Your task to perform on an android device: delete a single message in the gmail app Image 0: 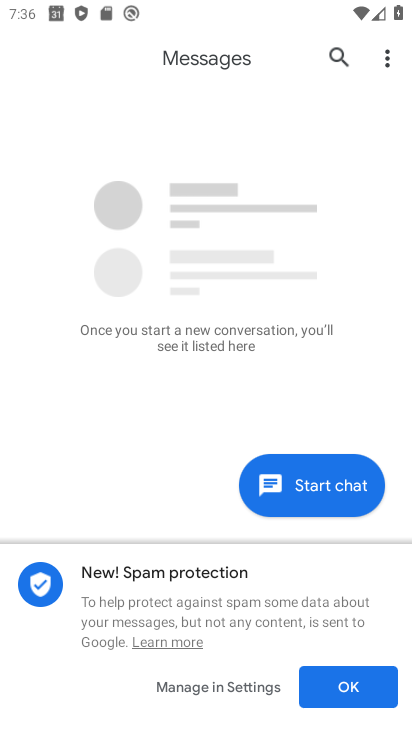
Step 0: press home button
Your task to perform on an android device: delete a single message in the gmail app Image 1: 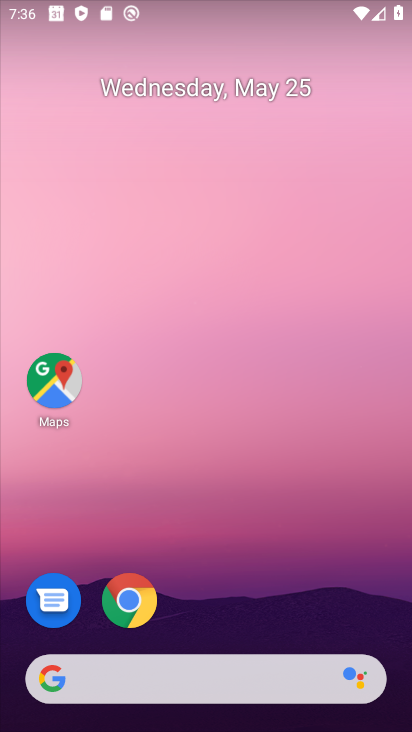
Step 1: drag from (358, 606) to (339, 238)
Your task to perform on an android device: delete a single message in the gmail app Image 2: 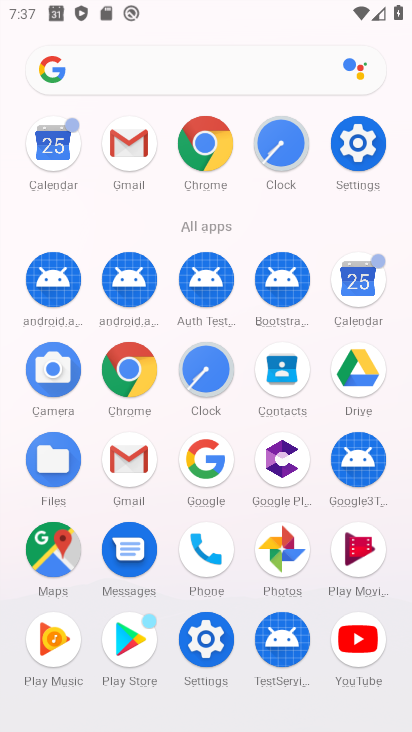
Step 2: click (138, 464)
Your task to perform on an android device: delete a single message in the gmail app Image 3: 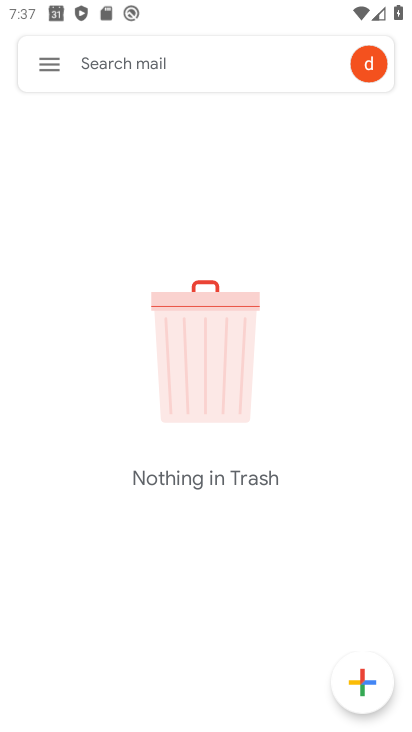
Step 3: click (56, 66)
Your task to perform on an android device: delete a single message in the gmail app Image 4: 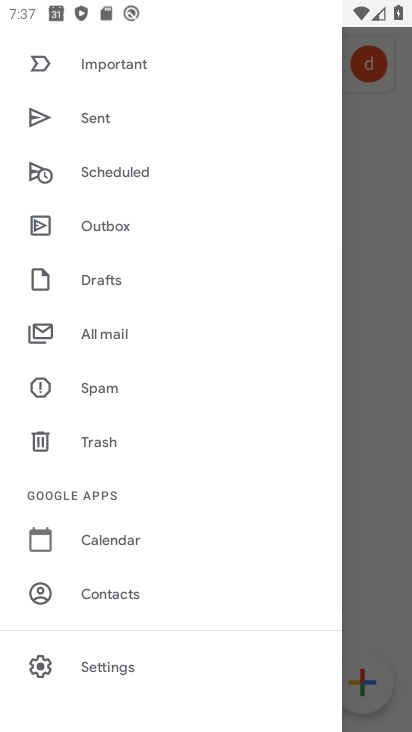
Step 4: click (141, 336)
Your task to perform on an android device: delete a single message in the gmail app Image 5: 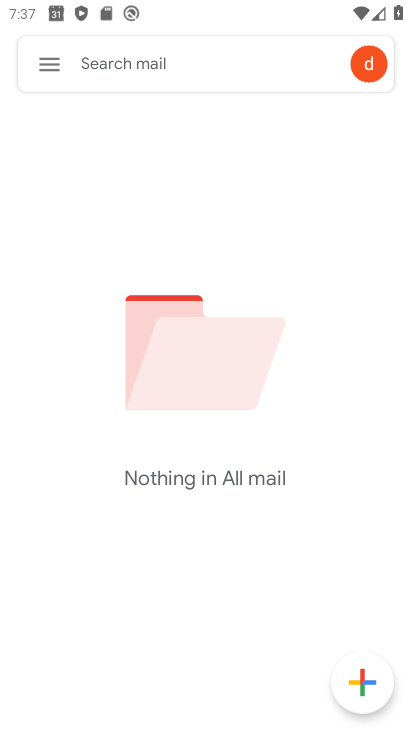
Step 5: task complete